Your task to perform on an android device: empty trash in the gmail app Image 0: 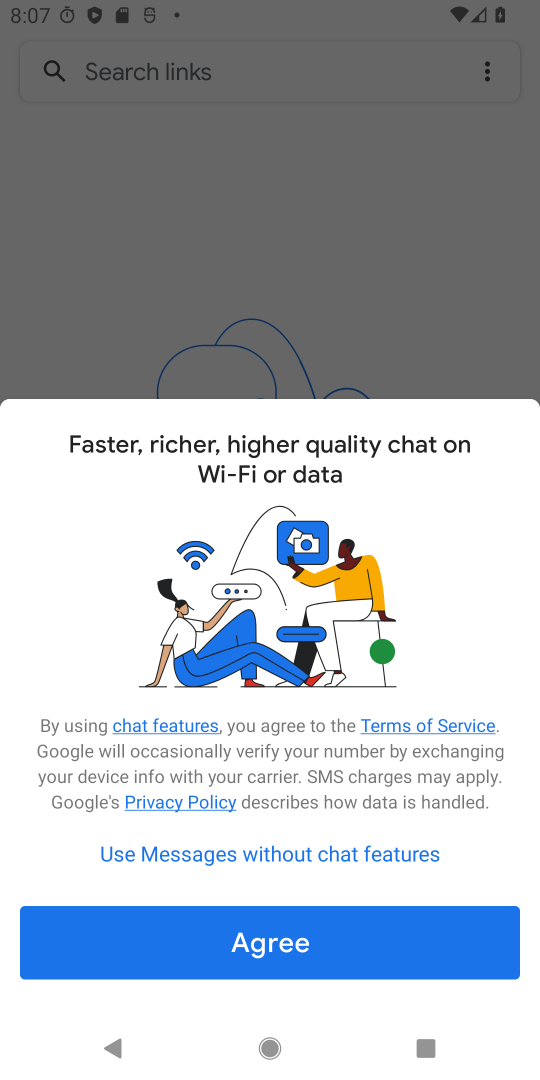
Step 0: press home button
Your task to perform on an android device: empty trash in the gmail app Image 1: 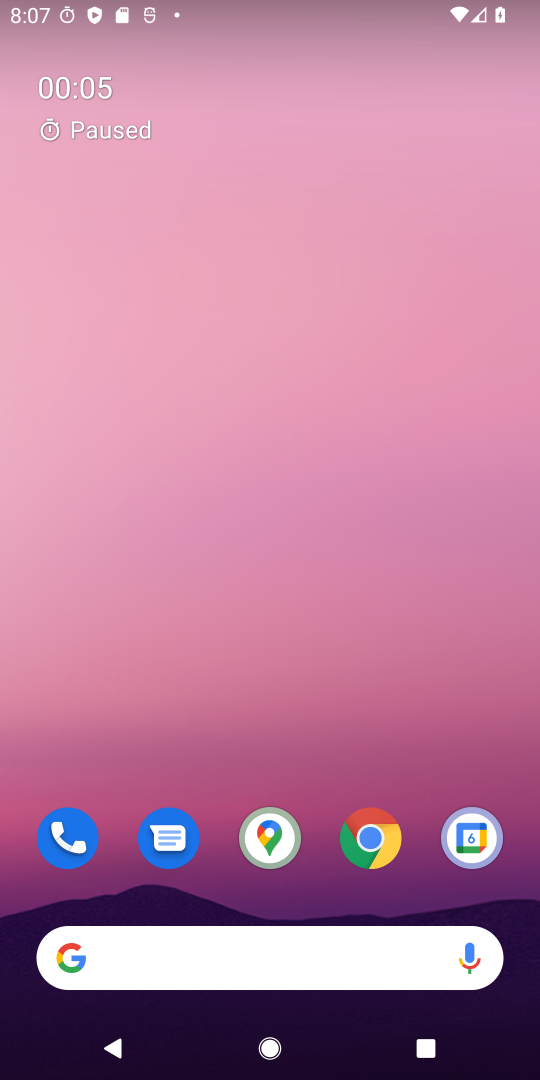
Step 1: drag from (231, 824) to (208, 433)
Your task to perform on an android device: empty trash in the gmail app Image 2: 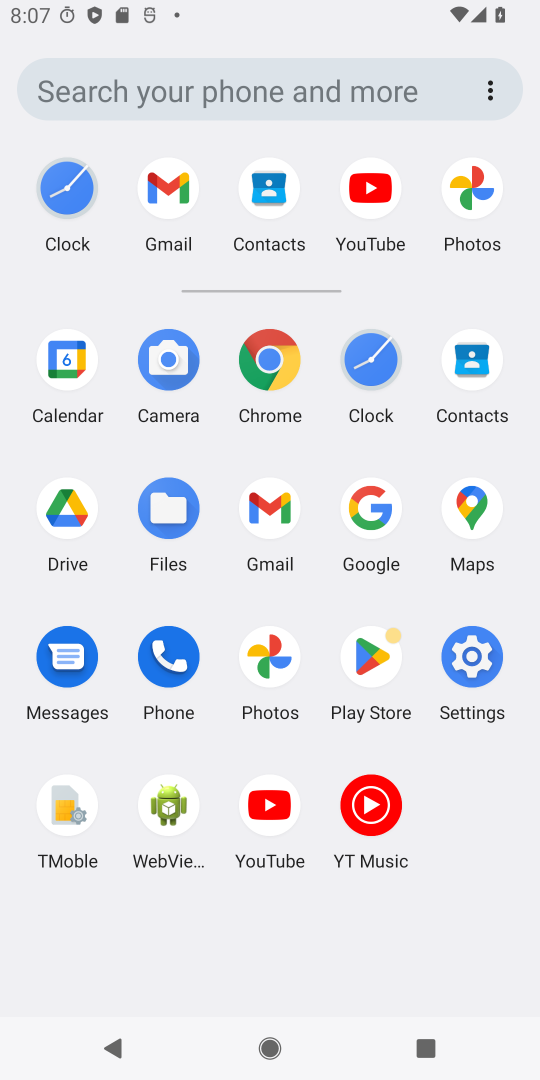
Step 2: click (253, 509)
Your task to perform on an android device: empty trash in the gmail app Image 3: 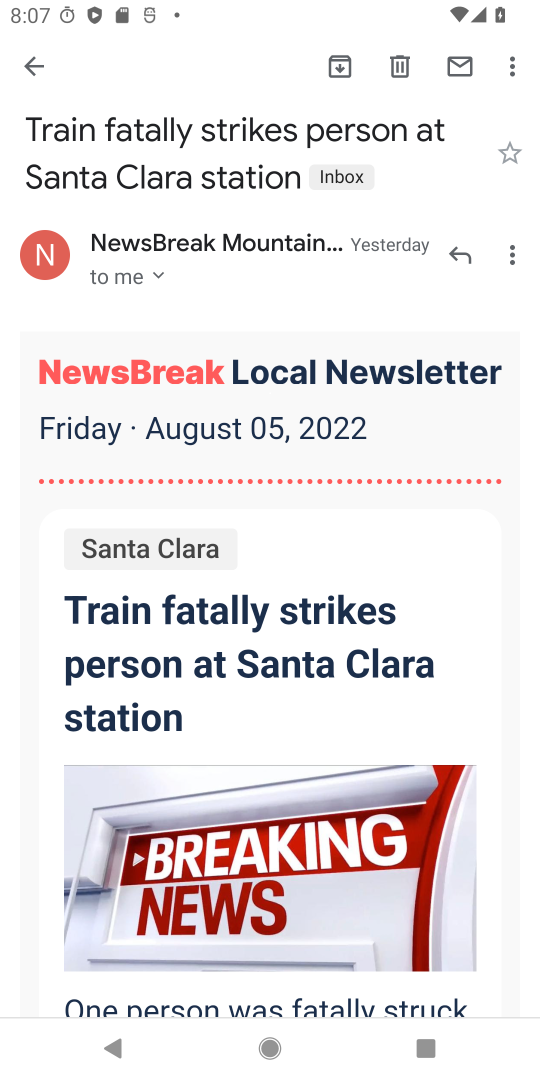
Step 3: click (31, 66)
Your task to perform on an android device: empty trash in the gmail app Image 4: 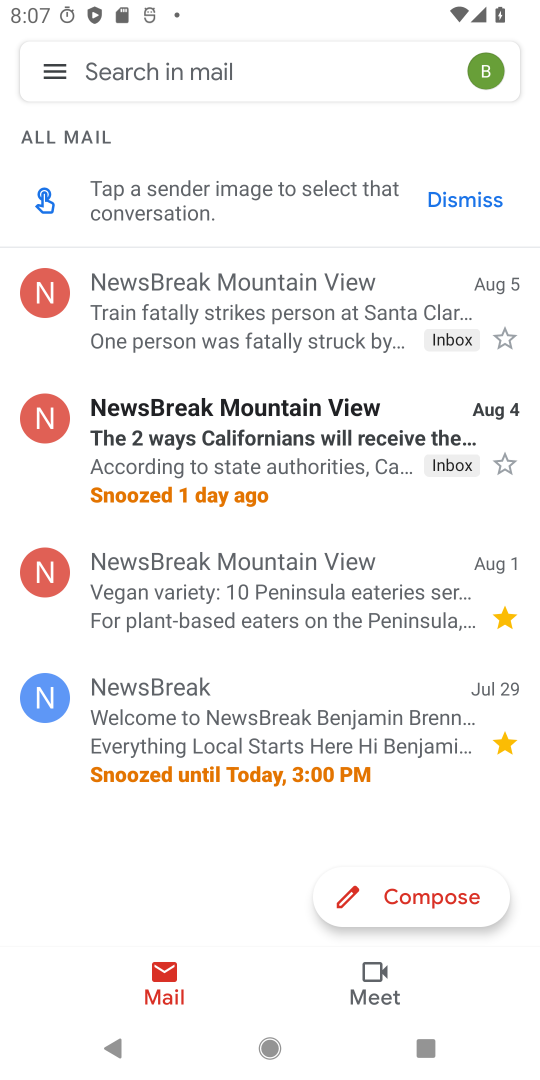
Step 4: click (66, 75)
Your task to perform on an android device: empty trash in the gmail app Image 5: 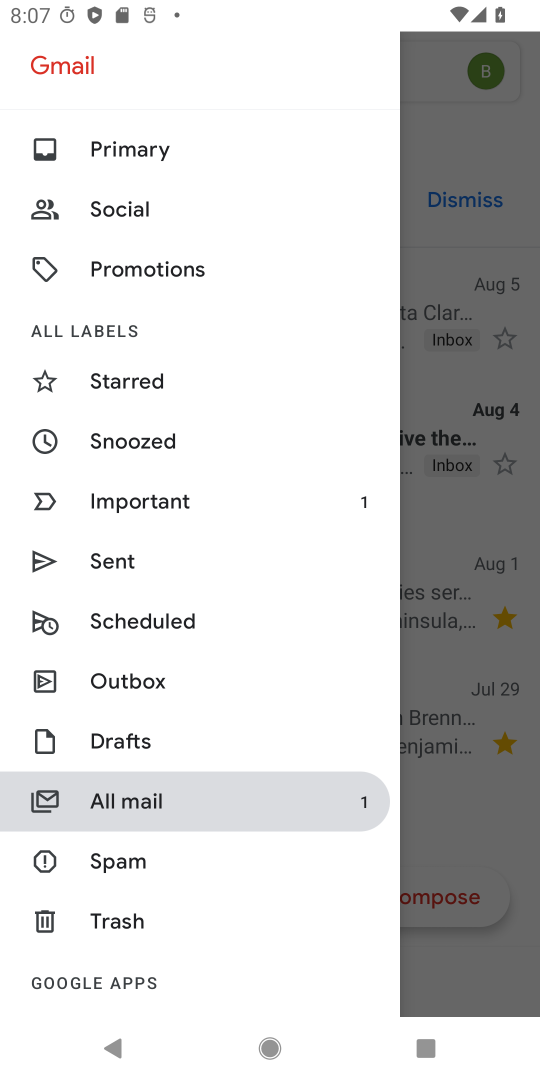
Step 5: click (139, 921)
Your task to perform on an android device: empty trash in the gmail app Image 6: 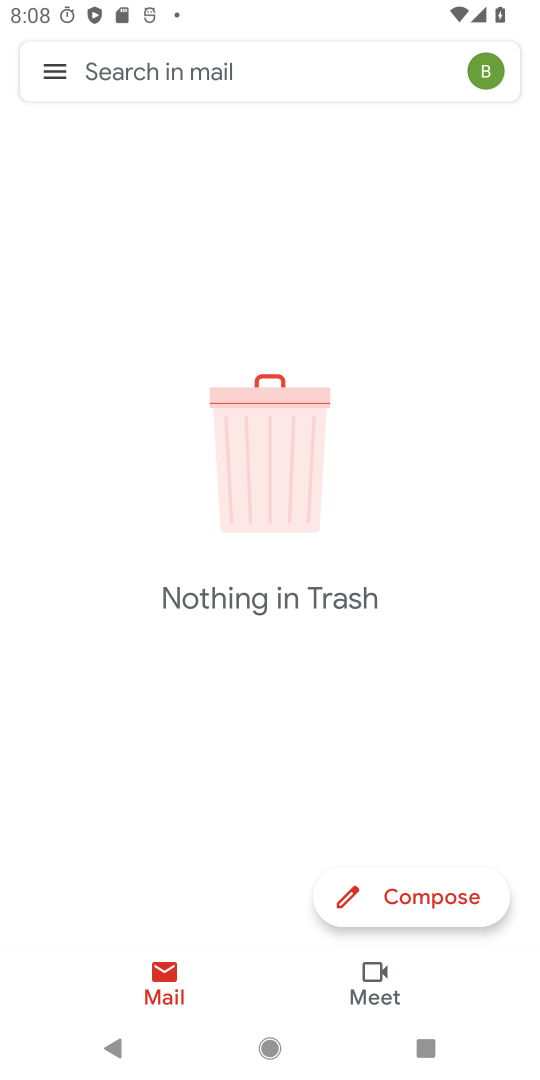
Step 6: click (59, 77)
Your task to perform on an android device: empty trash in the gmail app Image 7: 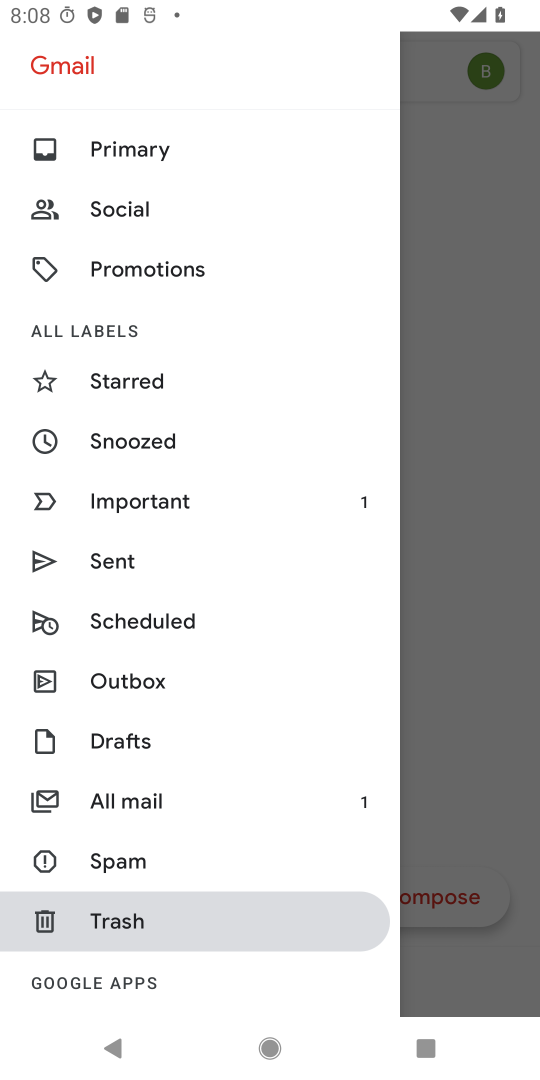
Step 7: click (123, 918)
Your task to perform on an android device: empty trash in the gmail app Image 8: 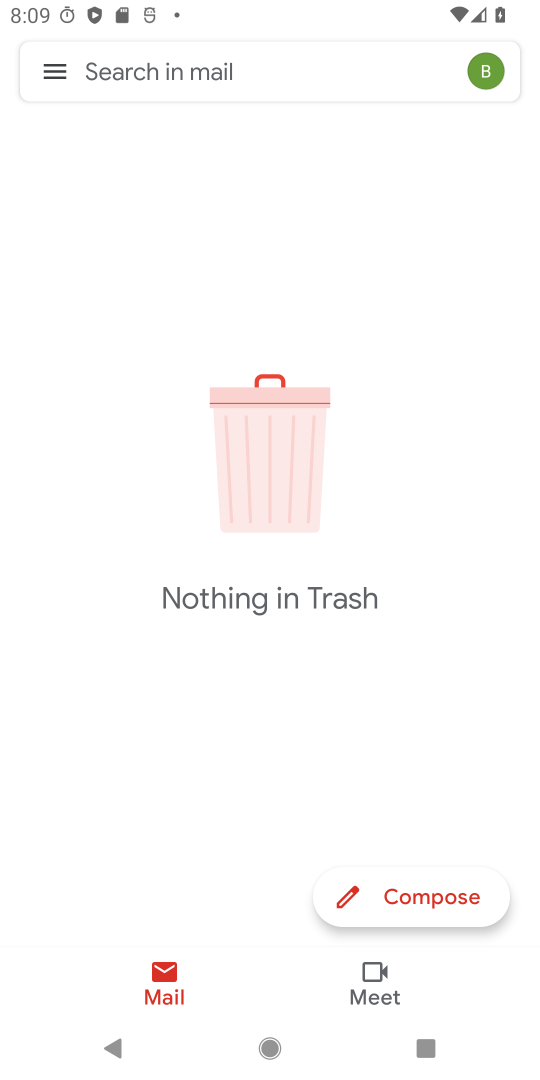
Step 8: task complete